Your task to perform on an android device: open the mobile data screen to see how much data has been used Image 0: 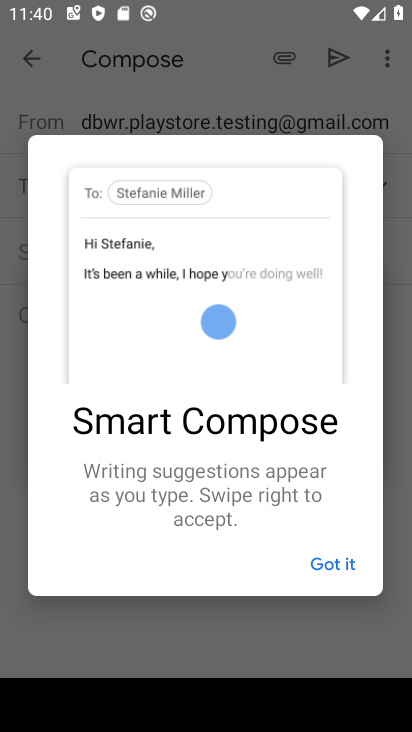
Step 0: press home button
Your task to perform on an android device: open the mobile data screen to see how much data has been used Image 1: 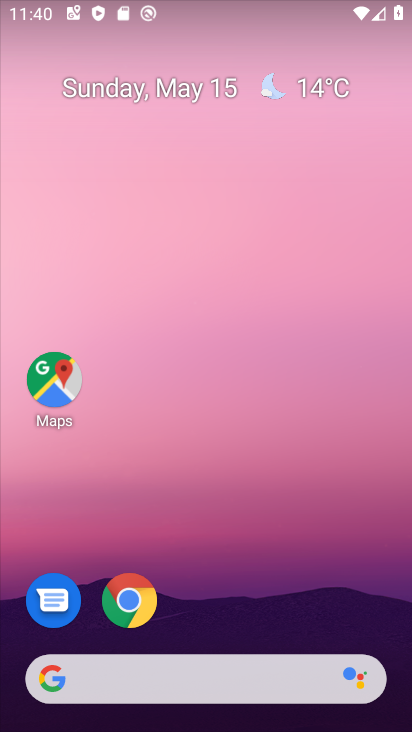
Step 1: drag from (396, 640) to (310, 75)
Your task to perform on an android device: open the mobile data screen to see how much data has been used Image 2: 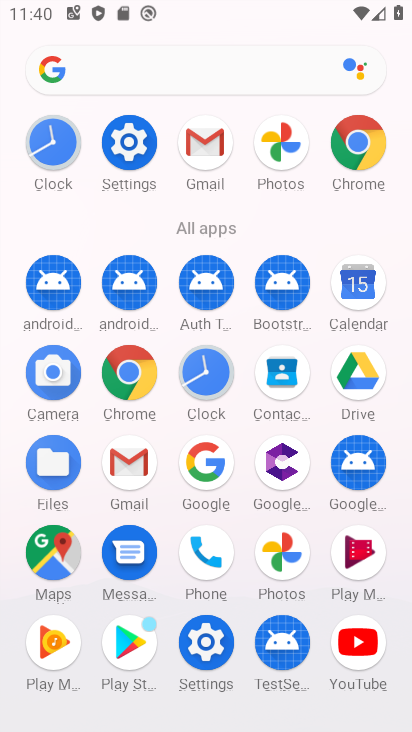
Step 2: click (204, 639)
Your task to perform on an android device: open the mobile data screen to see how much data has been used Image 3: 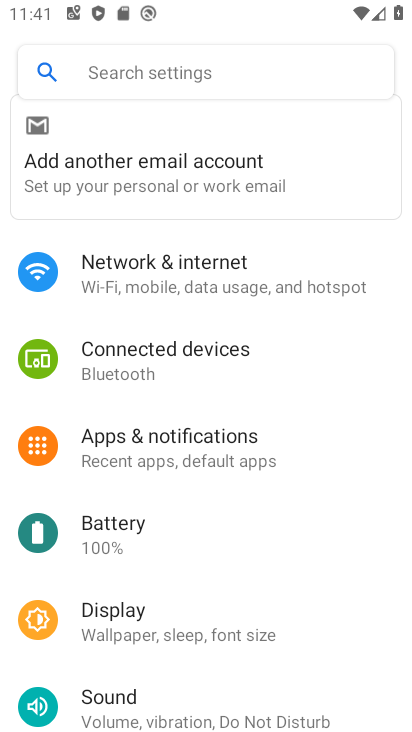
Step 3: click (136, 273)
Your task to perform on an android device: open the mobile data screen to see how much data has been used Image 4: 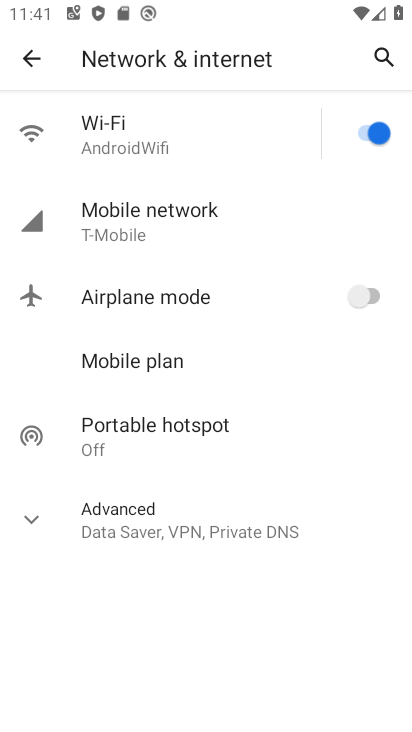
Step 4: click (135, 216)
Your task to perform on an android device: open the mobile data screen to see how much data has been used Image 5: 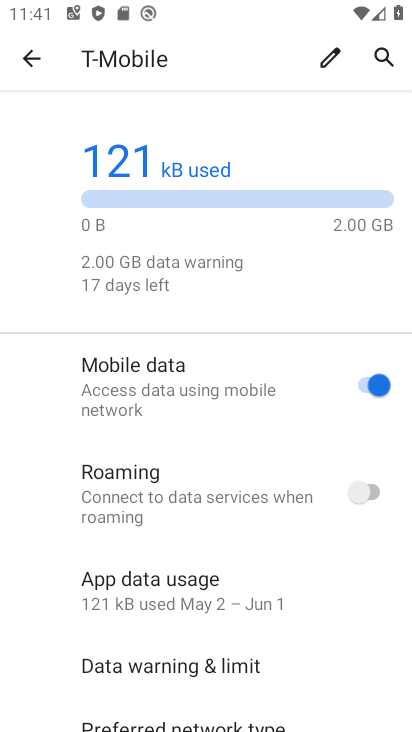
Step 5: task complete